Your task to perform on an android device: Open Google Chrome Image 0: 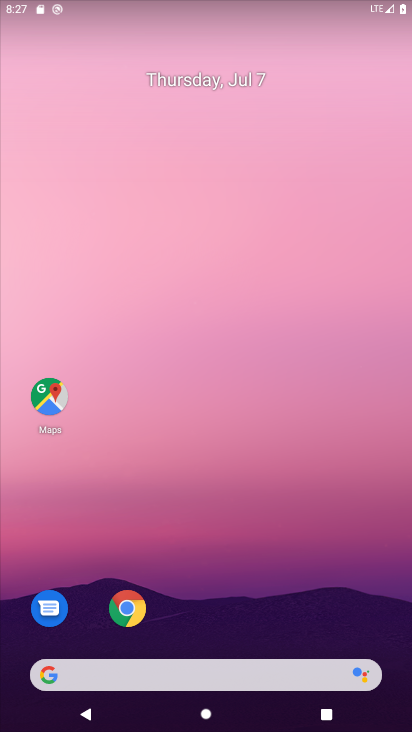
Step 0: drag from (334, 612) to (375, 106)
Your task to perform on an android device: Open Google Chrome Image 1: 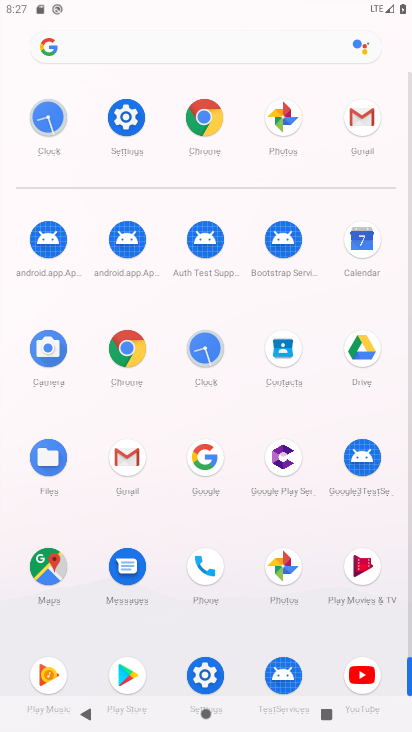
Step 1: click (128, 349)
Your task to perform on an android device: Open Google Chrome Image 2: 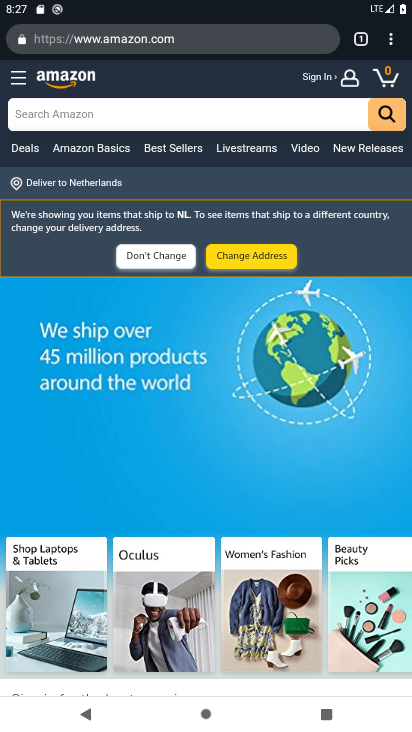
Step 2: task complete